Your task to perform on an android device: choose inbox layout in the gmail app Image 0: 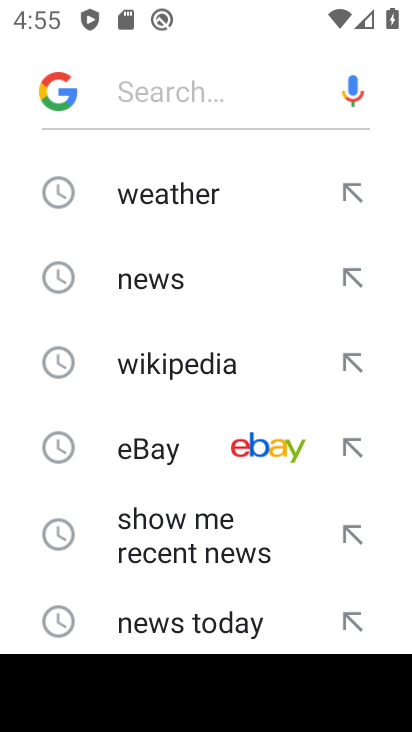
Step 0: press back button
Your task to perform on an android device: choose inbox layout in the gmail app Image 1: 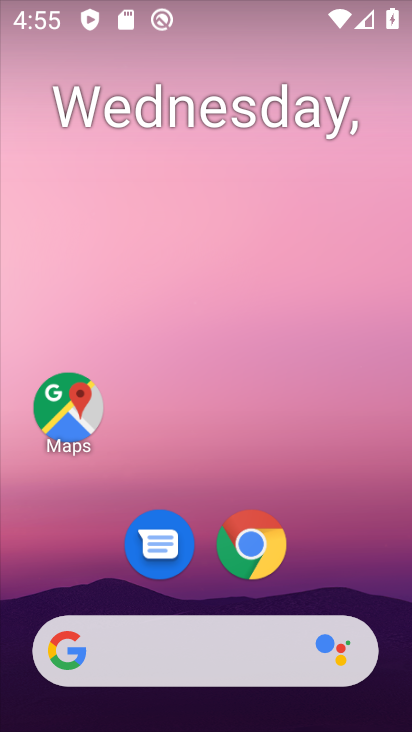
Step 1: drag from (367, 571) to (267, 162)
Your task to perform on an android device: choose inbox layout in the gmail app Image 2: 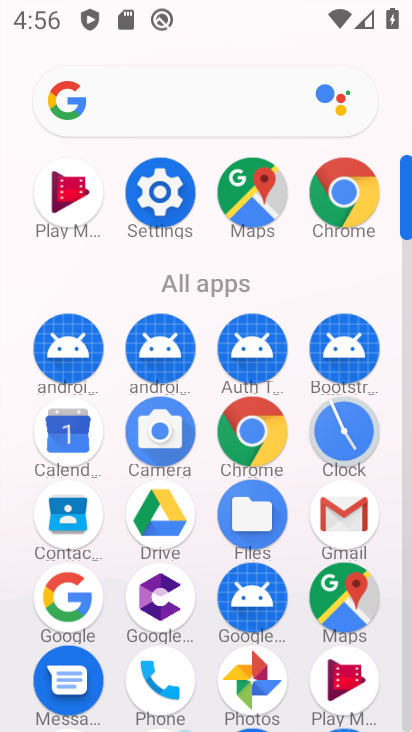
Step 2: click (336, 515)
Your task to perform on an android device: choose inbox layout in the gmail app Image 3: 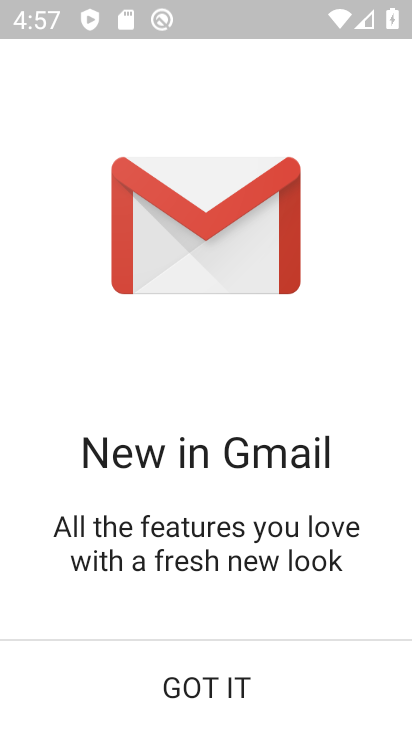
Step 3: click (204, 688)
Your task to perform on an android device: choose inbox layout in the gmail app Image 4: 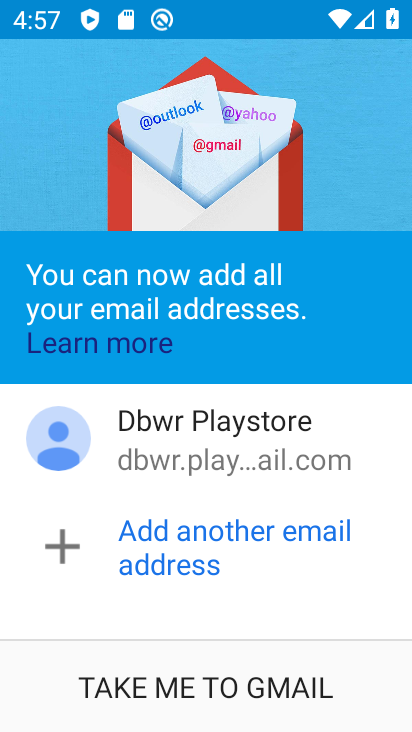
Step 4: click (204, 688)
Your task to perform on an android device: choose inbox layout in the gmail app Image 5: 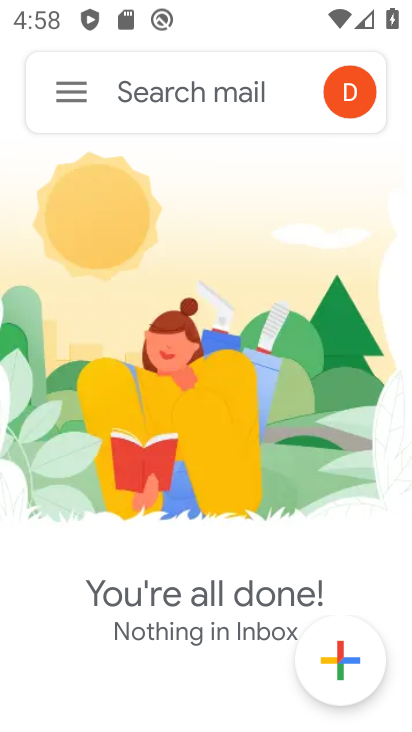
Step 5: click (63, 94)
Your task to perform on an android device: choose inbox layout in the gmail app Image 6: 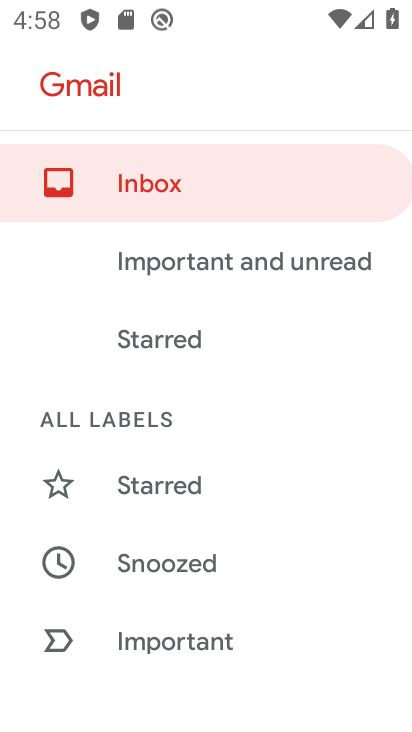
Step 6: drag from (302, 611) to (293, 349)
Your task to perform on an android device: choose inbox layout in the gmail app Image 7: 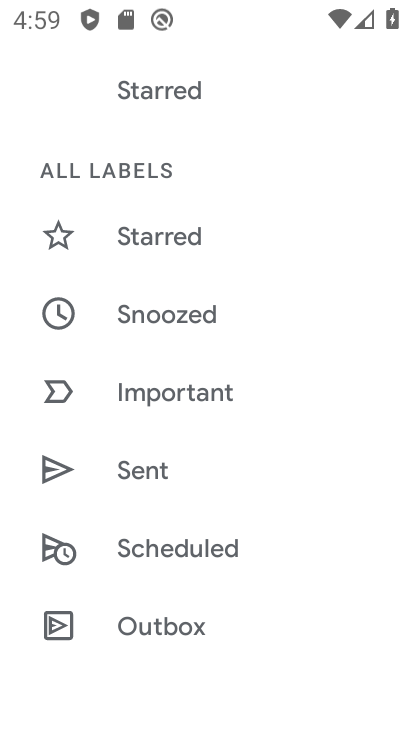
Step 7: drag from (297, 647) to (312, 302)
Your task to perform on an android device: choose inbox layout in the gmail app Image 8: 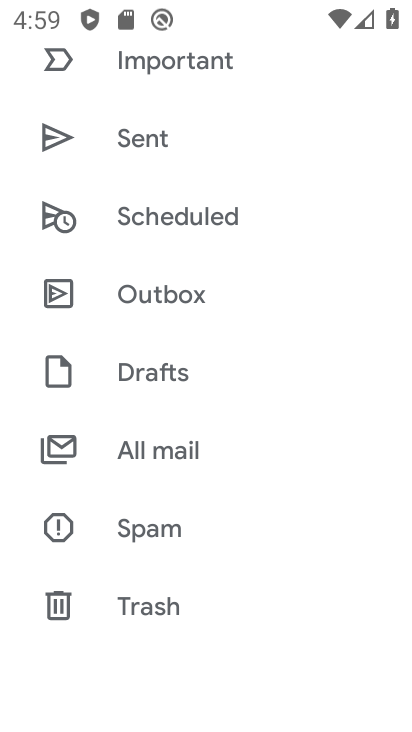
Step 8: drag from (247, 622) to (280, 307)
Your task to perform on an android device: choose inbox layout in the gmail app Image 9: 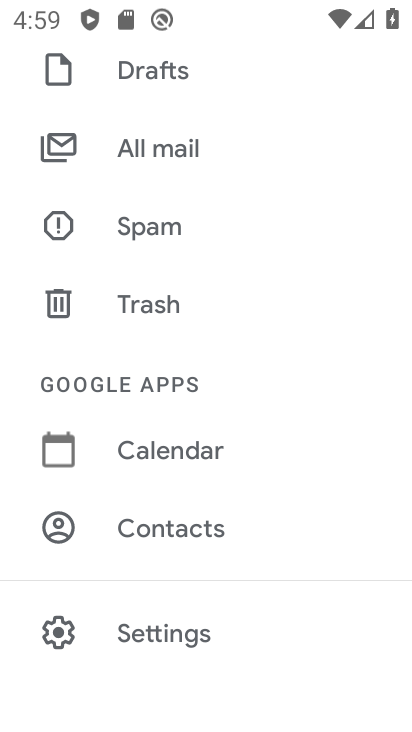
Step 9: click (140, 631)
Your task to perform on an android device: choose inbox layout in the gmail app Image 10: 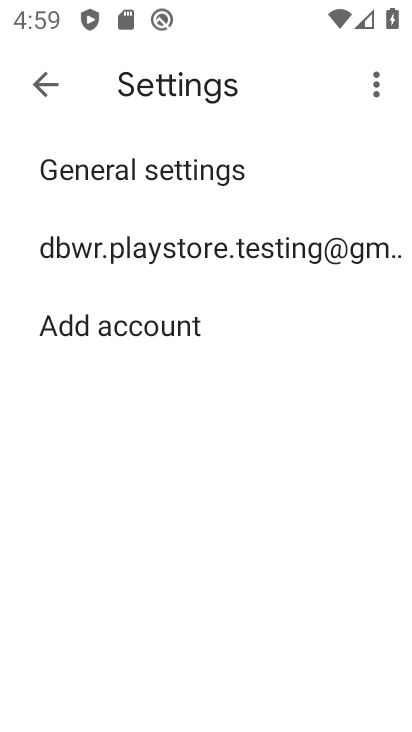
Step 10: click (44, 88)
Your task to perform on an android device: choose inbox layout in the gmail app Image 11: 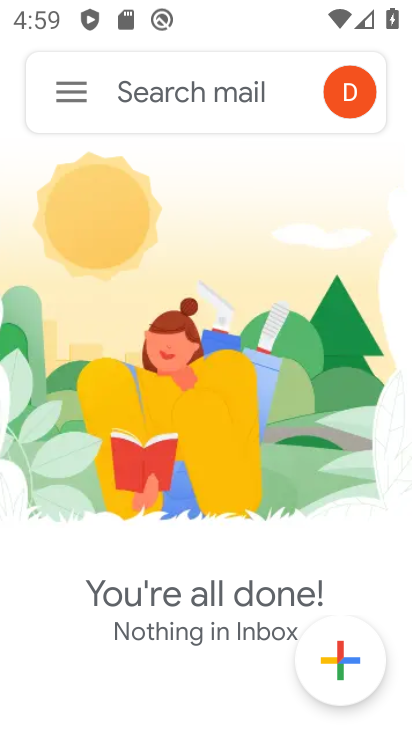
Step 11: click (73, 95)
Your task to perform on an android device: choose inbox layout in the gmail app Image 12: 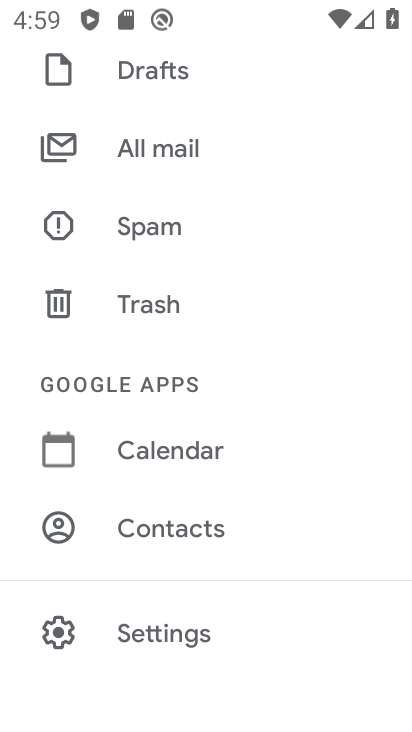
Step 12: drag from (271, 146) to (295, 567)
Your task to perform on an android device: choose inbox layout in the gmail app Image 13: 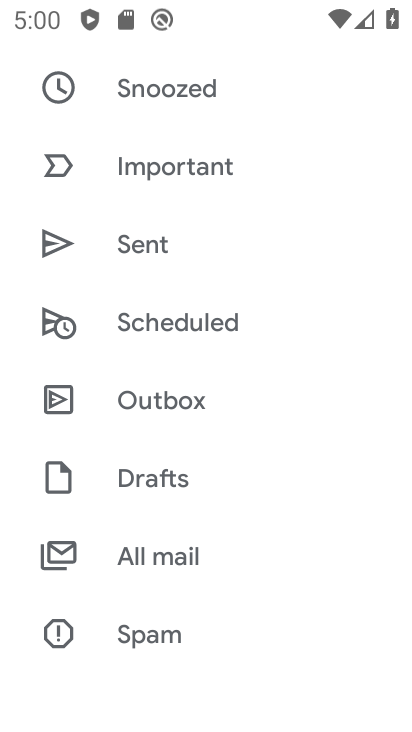
Step 13: drag from (293, 170) to (308, 526)
Your task to perform on an android device: choose inbox layout in the gmail app Image 14: 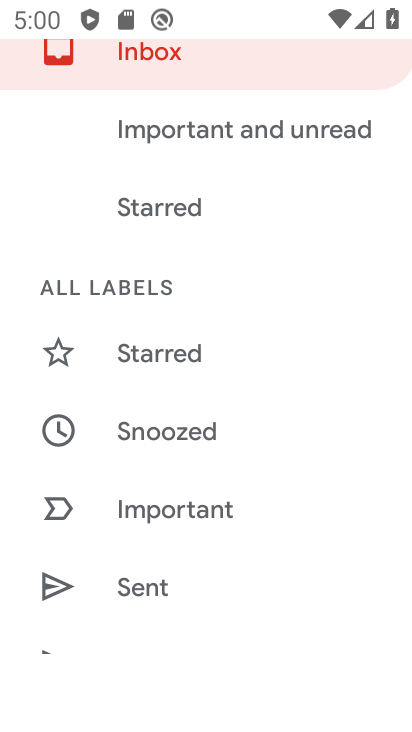
Step 14: drag from (310, 225) to (310, 629)
Your task to perform on an android device: choose inbox layout in the gmail app Image 15: 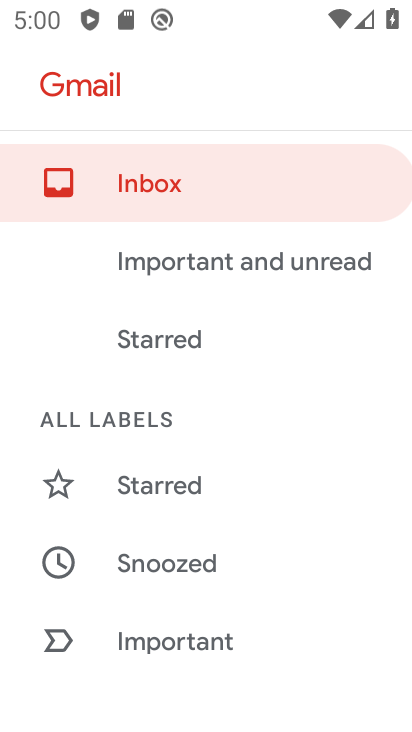
Step 15: drag from (268, 618) to (275, 223)
Your task to perform on an android device: choose inbox layout in the gmail app Image 16: 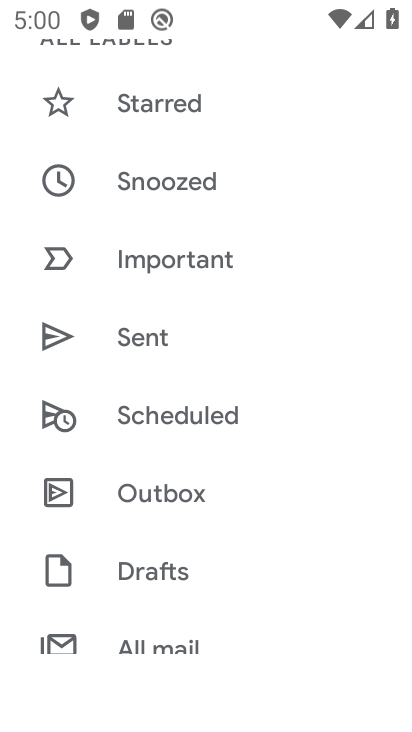
Step 16: drag from (274, 194) to (293, 538)
Your task to perform on an android device: choose inbox layout in the gmail app Image 17: 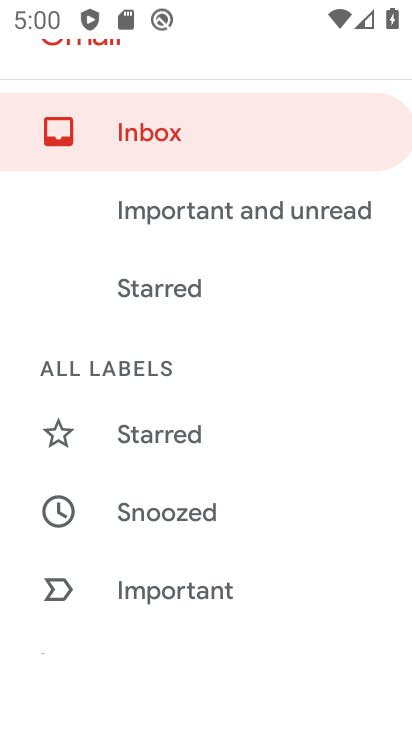
Step 17: click (163, 144)
Your task to perform on an android device: choose inbox layout in the gmail app Image 18: 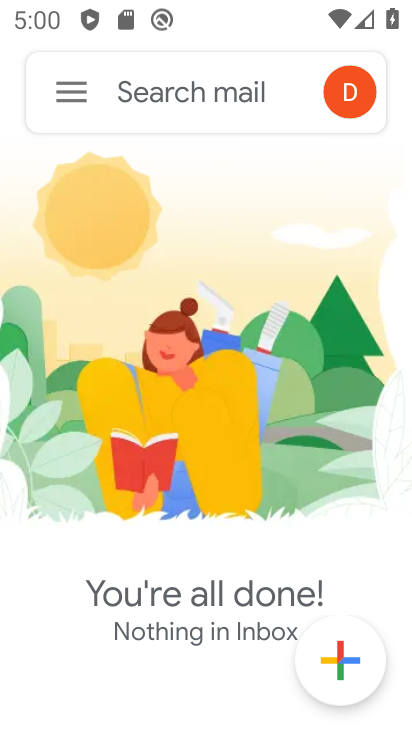
Step 18: task complete